Your task to perform on an android device: Search for seafood restaurants on Google Maps Image 0: 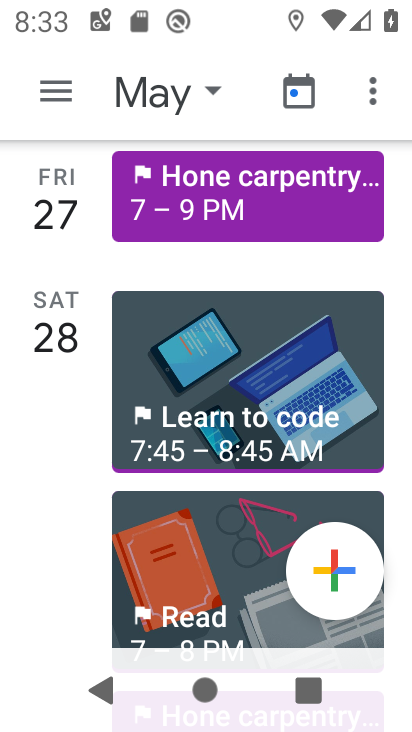
Step 0: press home button
Your task to perform on an android device: Search for seafood restaurants on Google Maps Image 1: 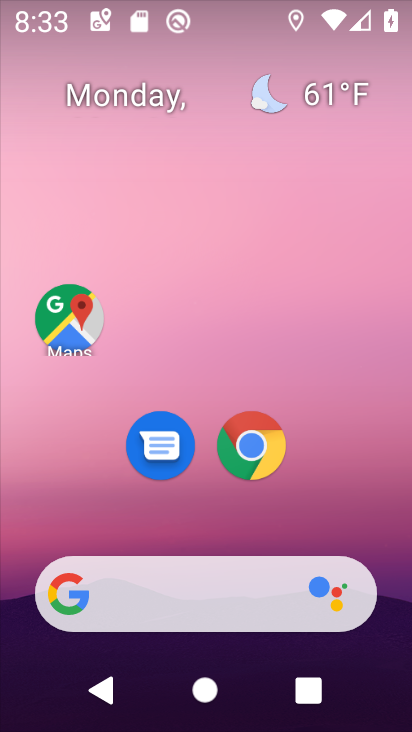
Step 1: drag from (208, 524) to (222, 47)
Your task to perform on an android device: Search for seafood restaurants on Google Maps Image 2: 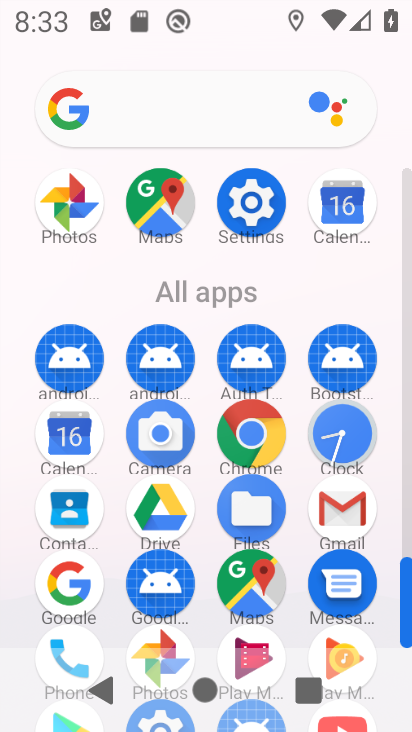
Step 2: click (160, 195)
Your task to perform on an android device: Search for seafood restaurants on Google Maps Image 3: 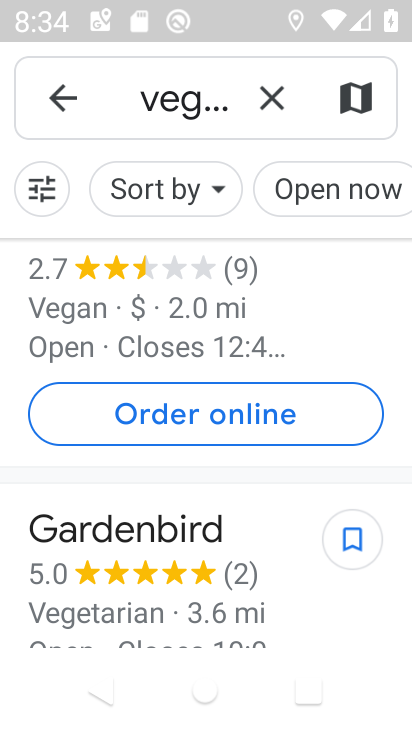
Step 3: click (266, 103)
Your task to perform on an android device: Search for seafood restaurants on Google Maps Image 4: 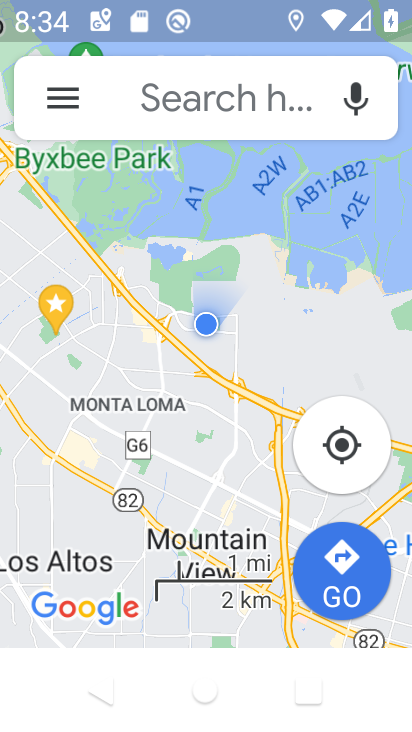
Step 4: click (166, 95)
Your task to perform on an android device: Search for seafood restaurants on Google Maps Image 5: 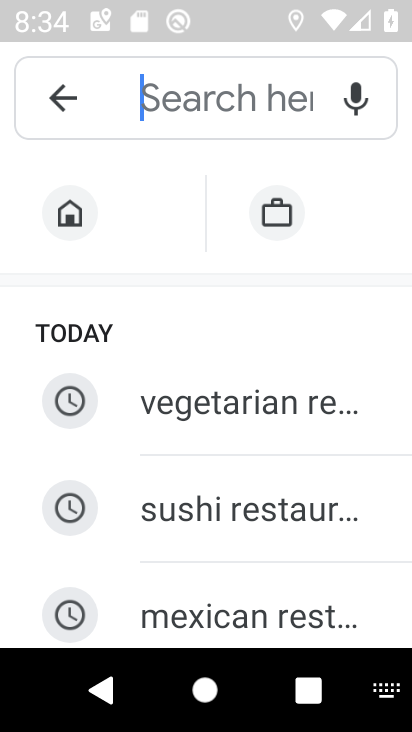
Step 5: drag from (247, 559) to (235, 191)
Your task to perform on an android device: Search for seafood restaurants on Google Maps Image 6: 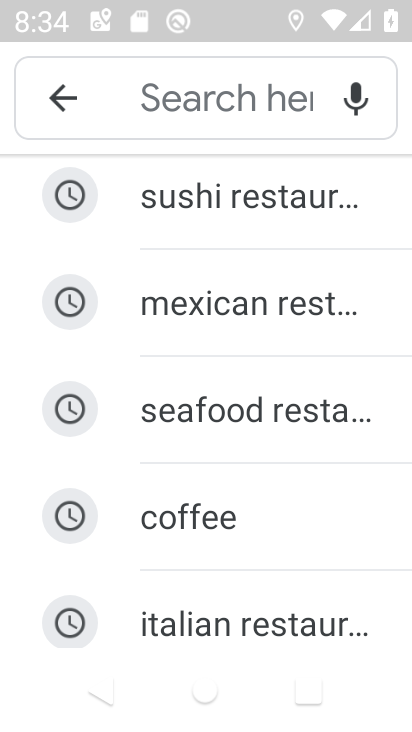
Step 6: click (251, 428)
Your task to perform on an android device: Search for seafood restaurants on Google Maps Image 7: 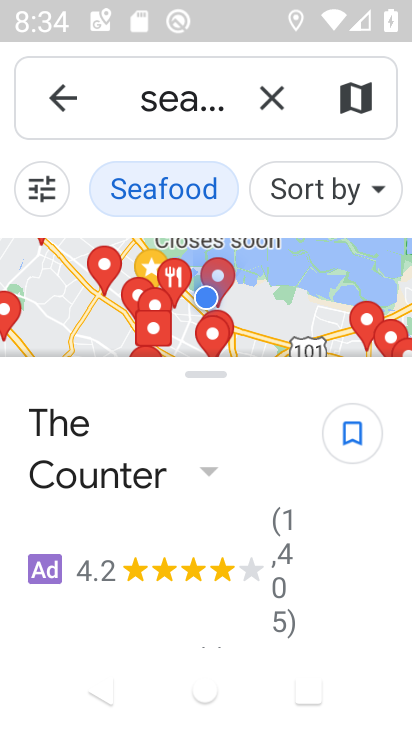
Step 7: task complete